Your task to perform on an android device: delete location history Image 0: 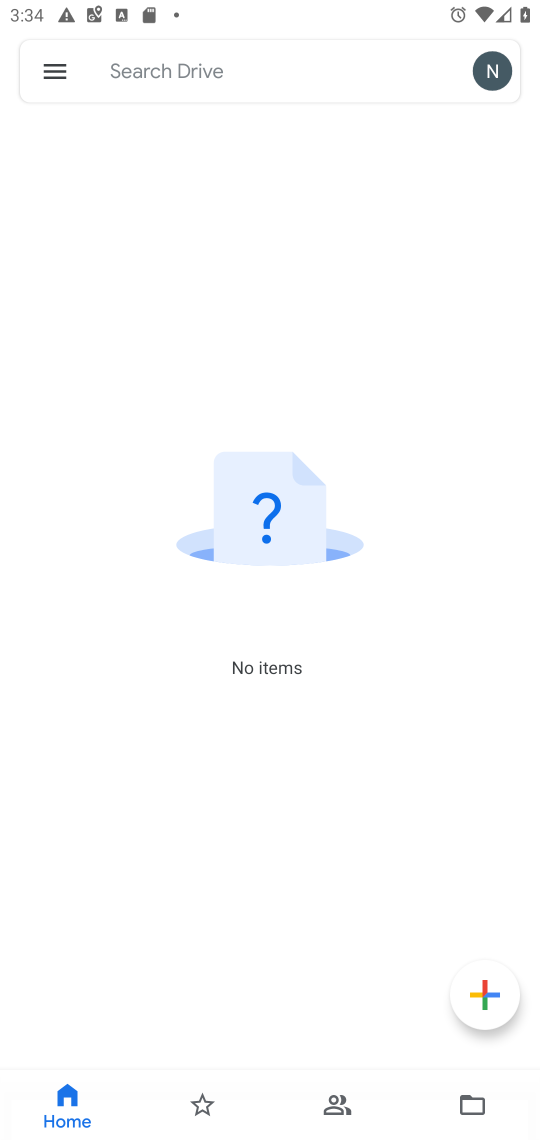
Step 0: press home button
Your task to perform on an android device: delete location history Image 1: 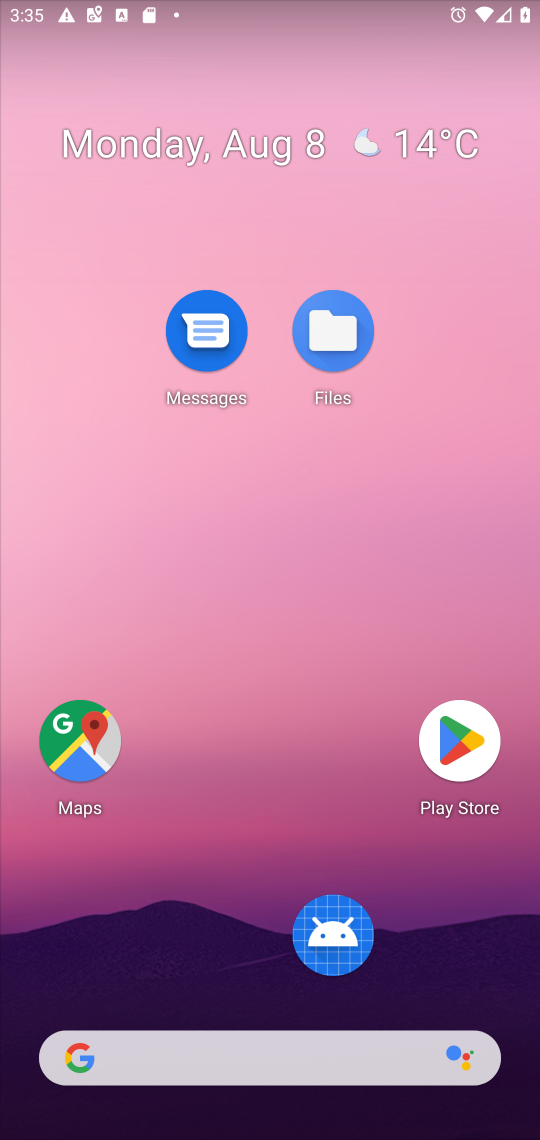
Step 1: drag from (327, 1057) to (120, 65)
Your task to perform on an android device: delete location history Image 2: 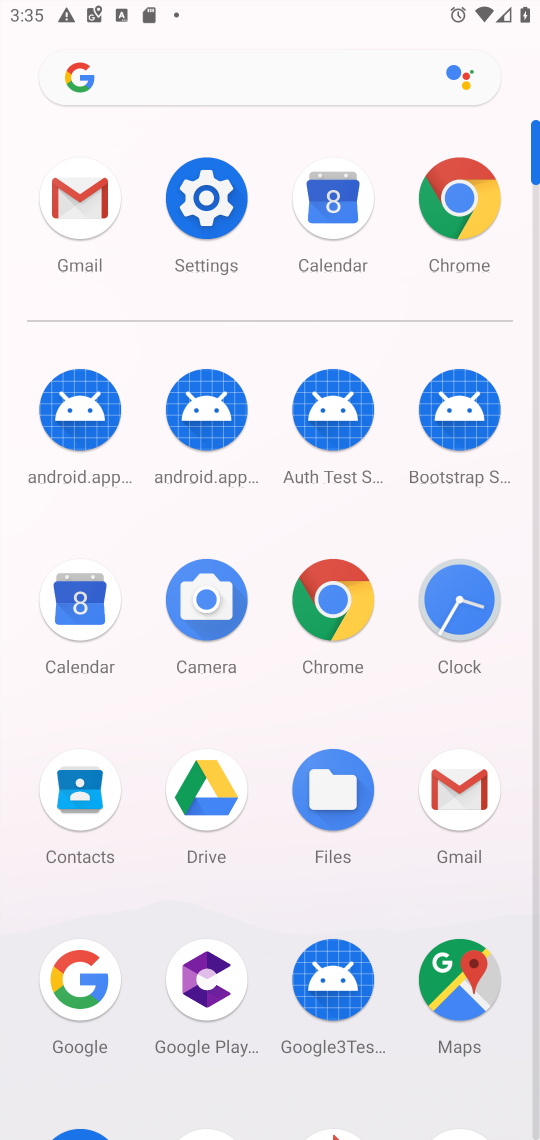
Step 2: click (180, 189)
Your task to perform on an android device: delete location history Image 3: 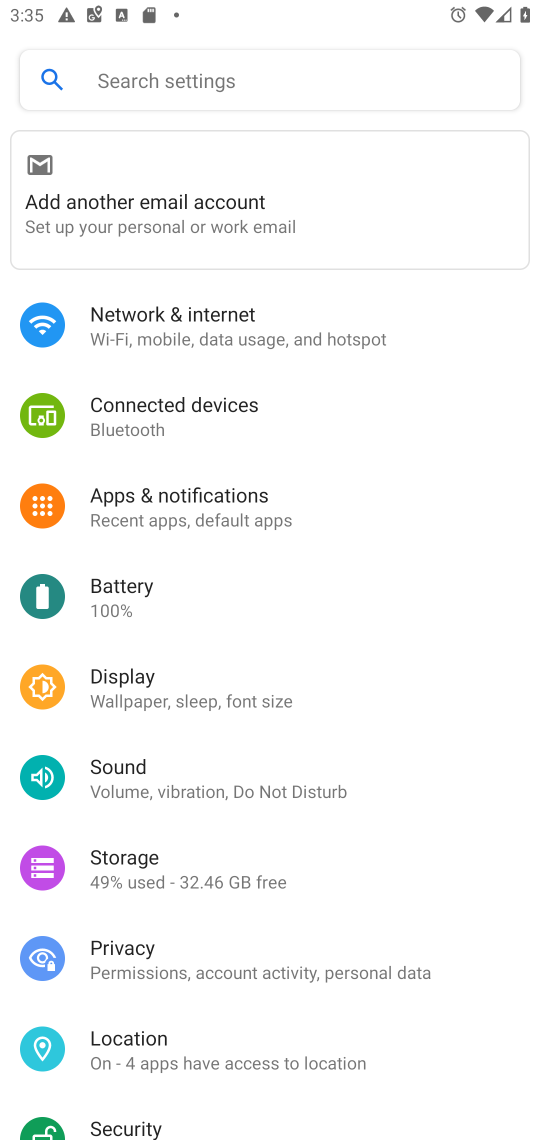
Step 3: click (173, 1040)
Your task to perform on an android device: delete location history Image 4: 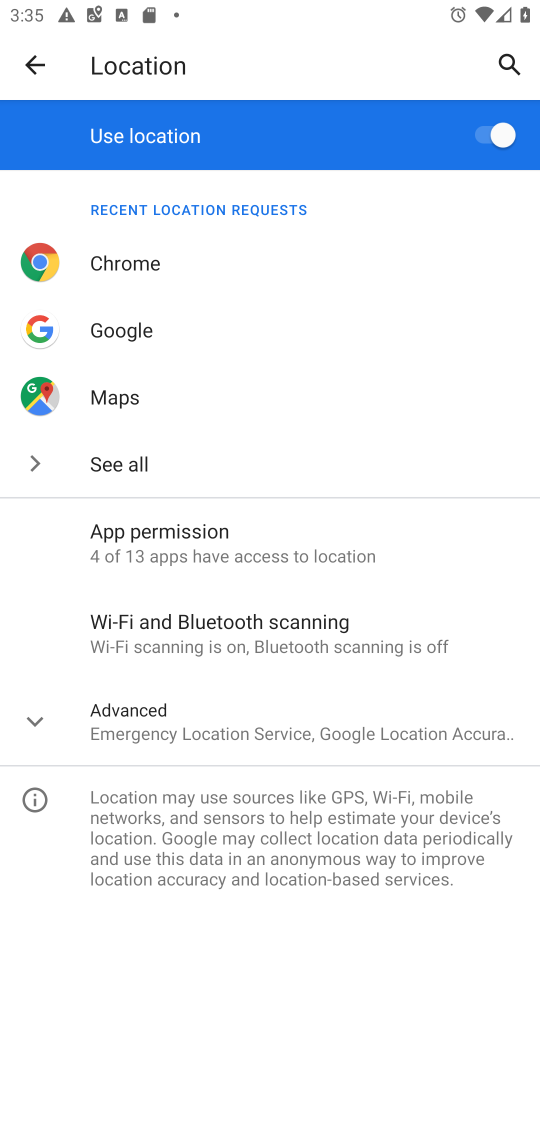
Step 4: press home button
Your task to perform on an android device: delete location history Image 5: 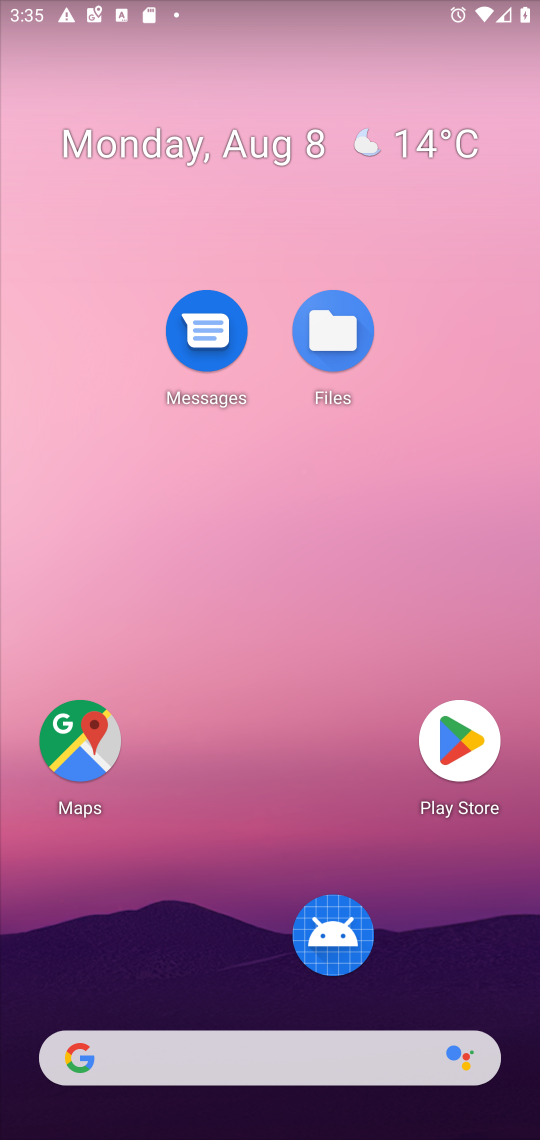
Step 5: drag from (269, 1042) to (313, 6)
Your task to perform on an android device: delete location history Image 6: 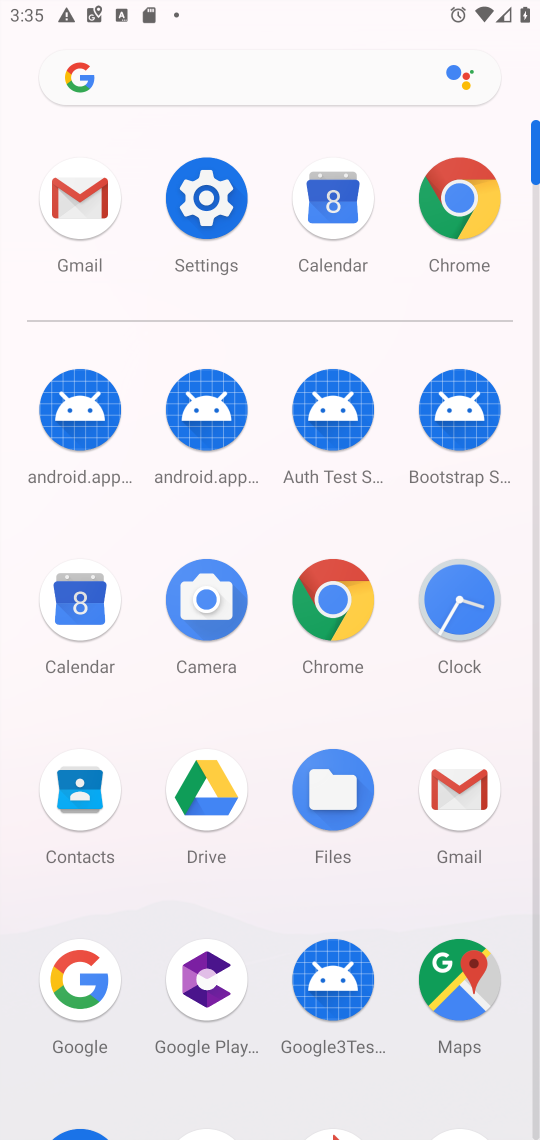
Step 6: click (467, 966)
Your task to perform on an android device: delete location history Image 7: 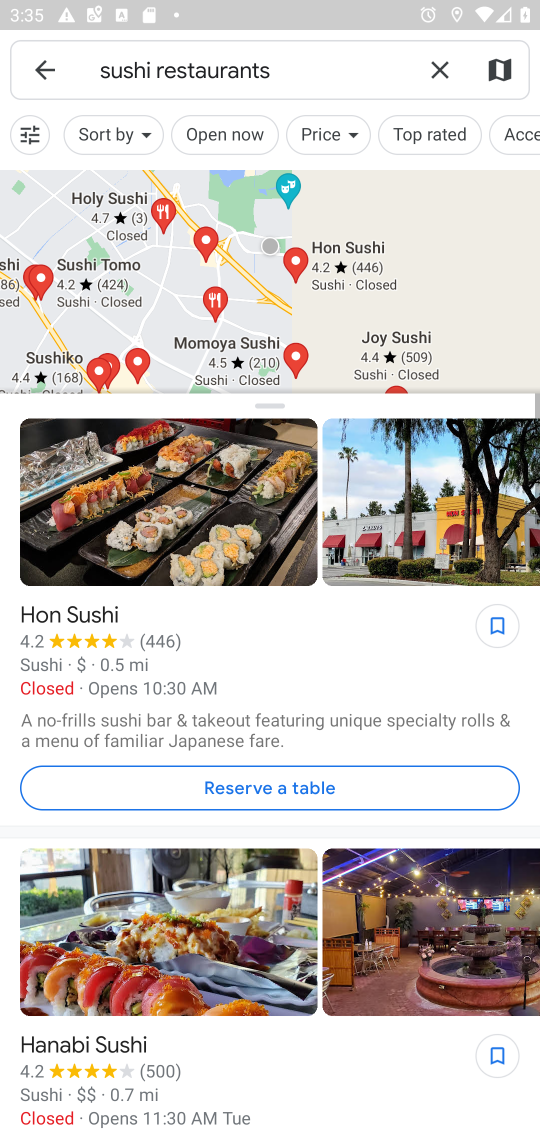
Step 7: press back button
Your task to perform on an android device: delete location history Image 8: 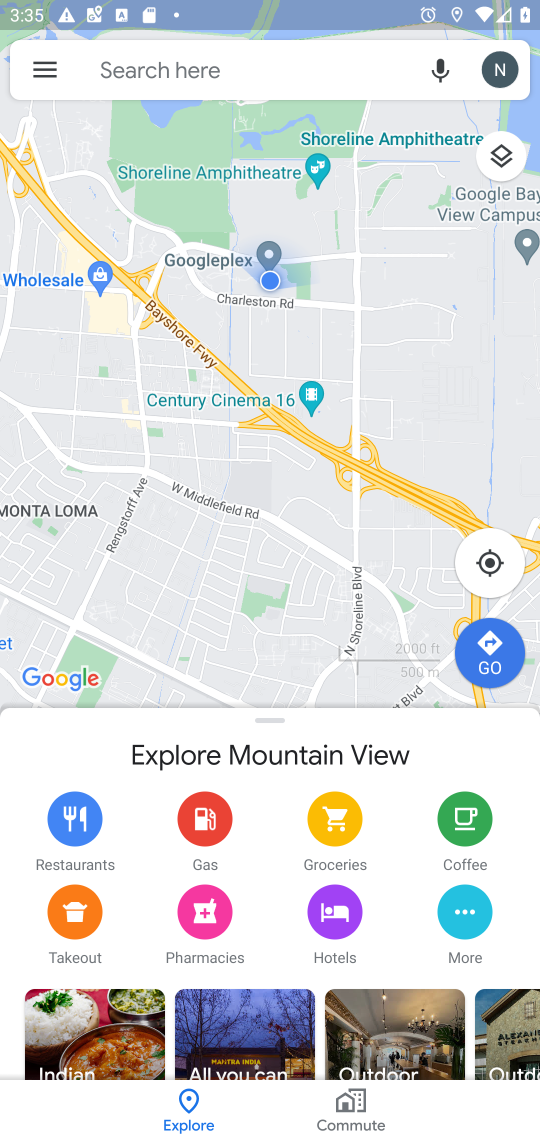
Step 8: click (55, 67)
Your task to perform on an android device: delete location history Image 9: 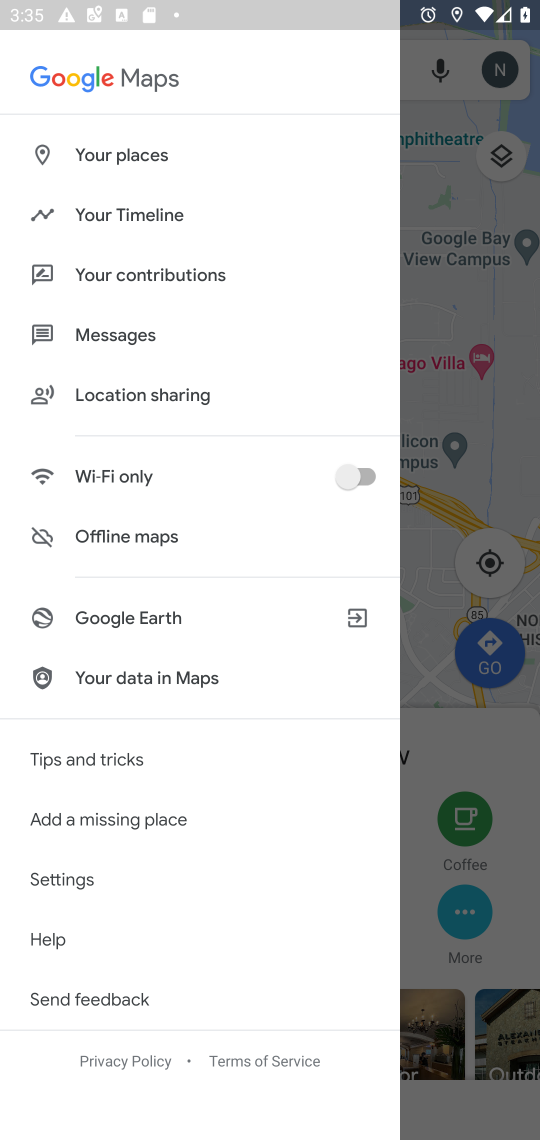
Step 9: click (164, 208)
Your task to perform on an android device: delete location history Image 10: 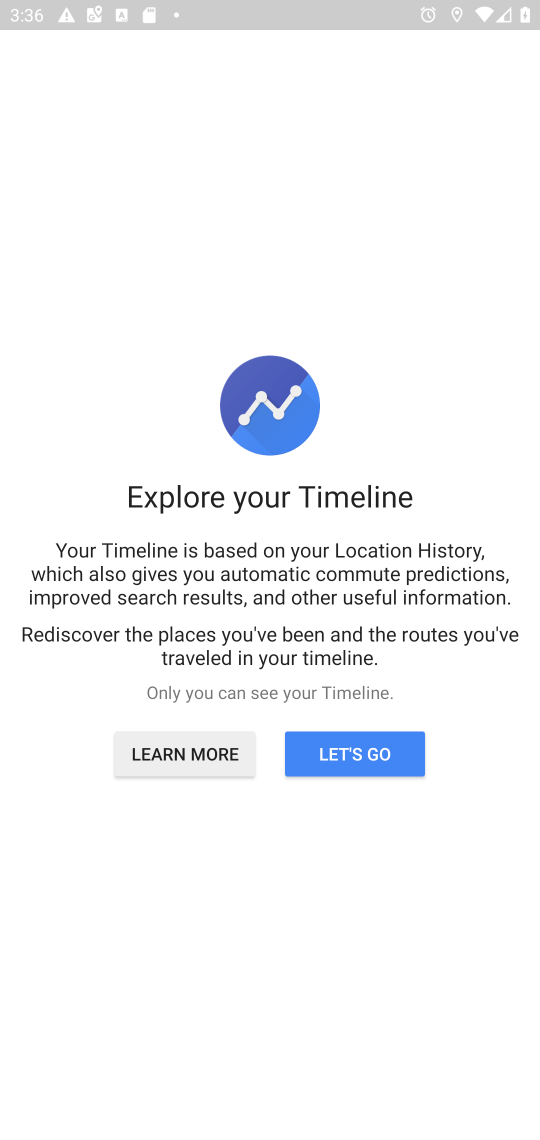
Step 10: click (326, 745)
Your task to perform on an android device: delete location history Image 11: 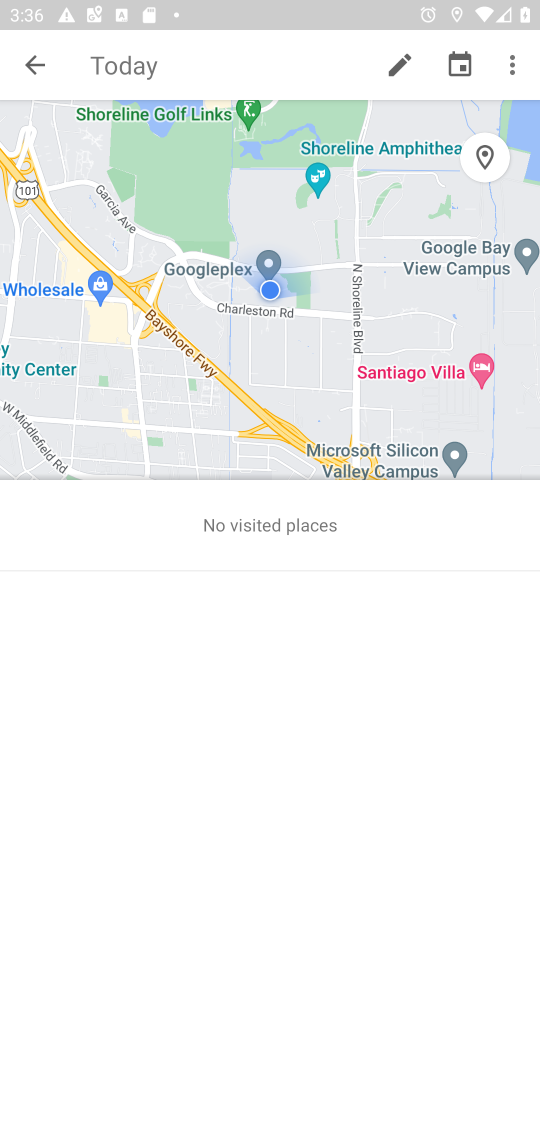
Step 11: click (513, 63)
Your task to perform on an android device: delete location history Image 12: 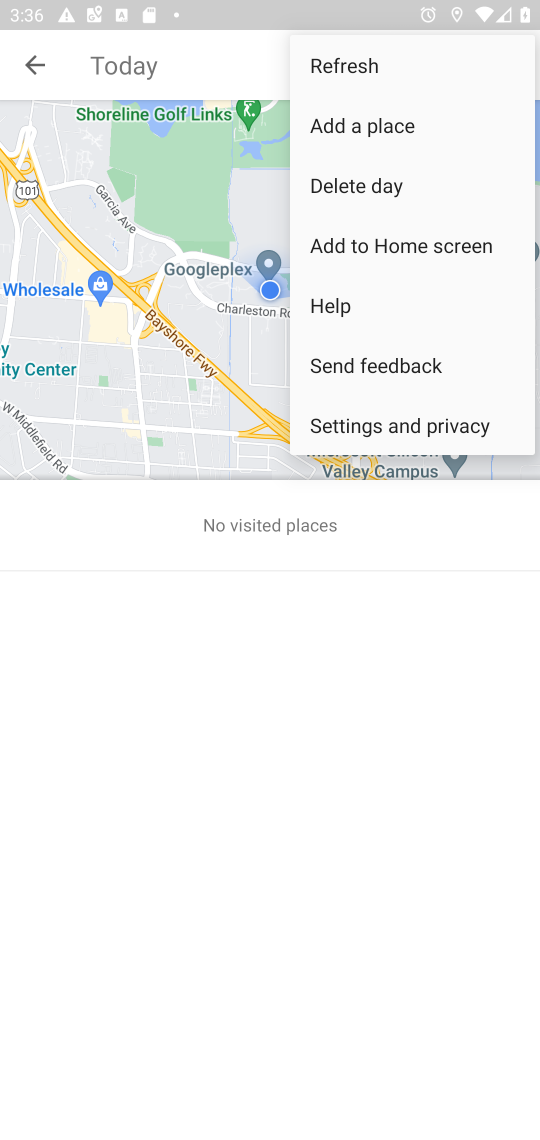
Step 12: click (394, 420)
Your task to perform on an android device: delete location history Image 13: 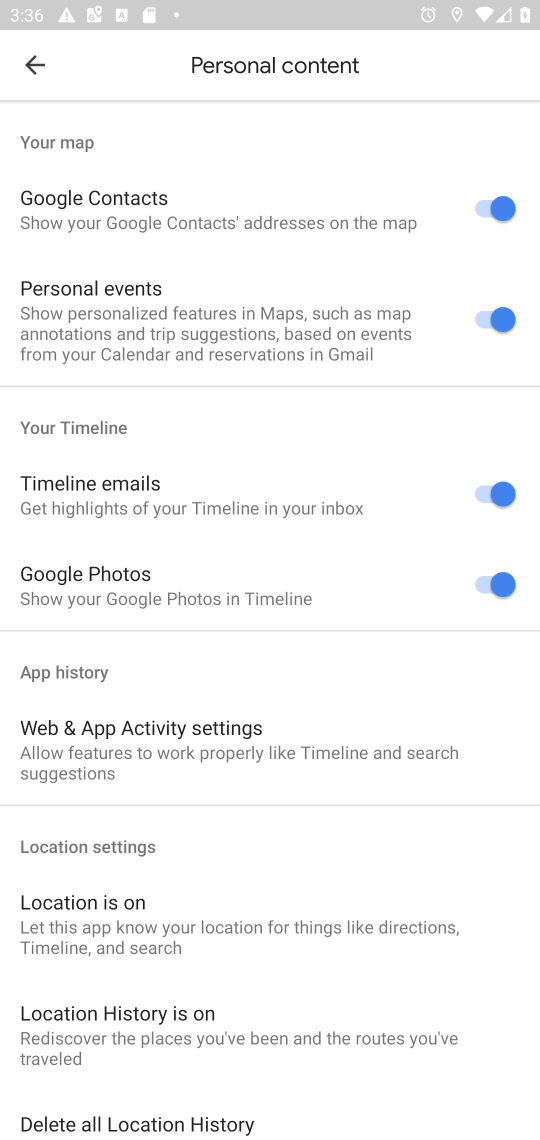
Step 13: click (242, 1107)
Your task to perform on an android device: delete location history Image 14: 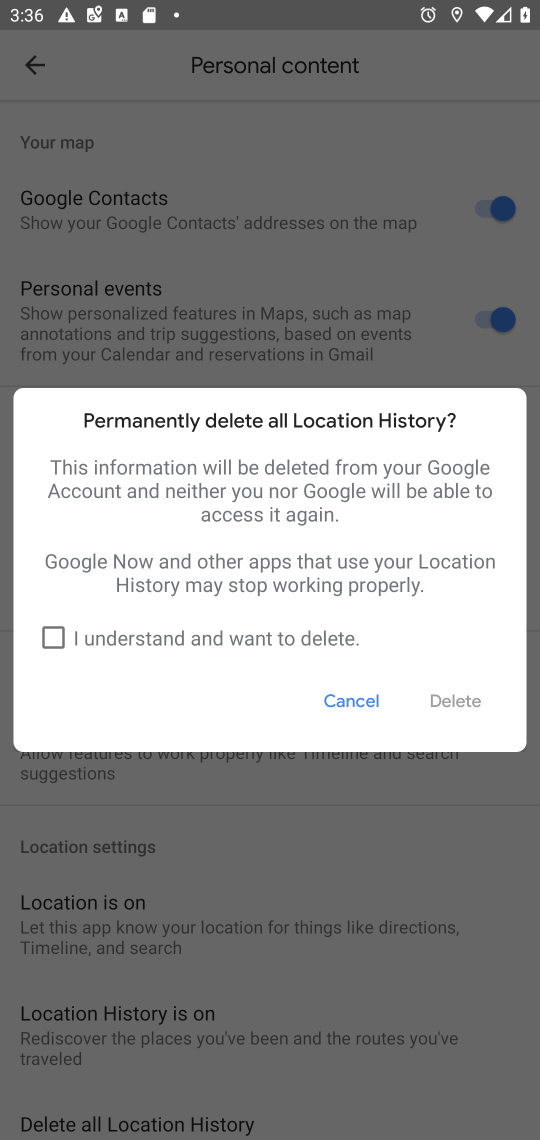
Step 14: click (55, 630)
Your task to perform on an android device: delete location history Image 15: 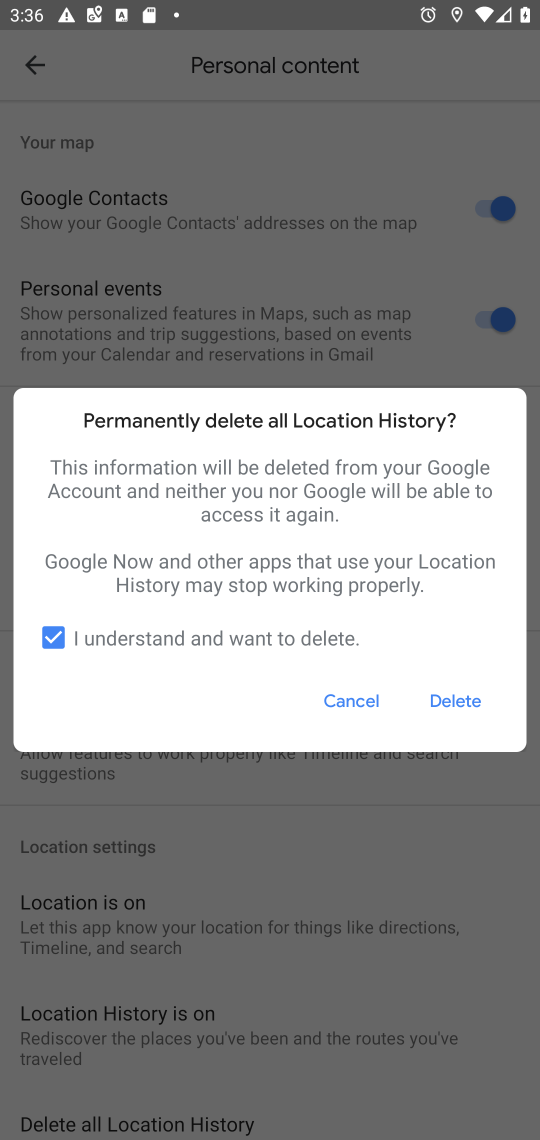
Step 15: click (473, 701)
Your task to perform on an android device: delete location history Image 16: 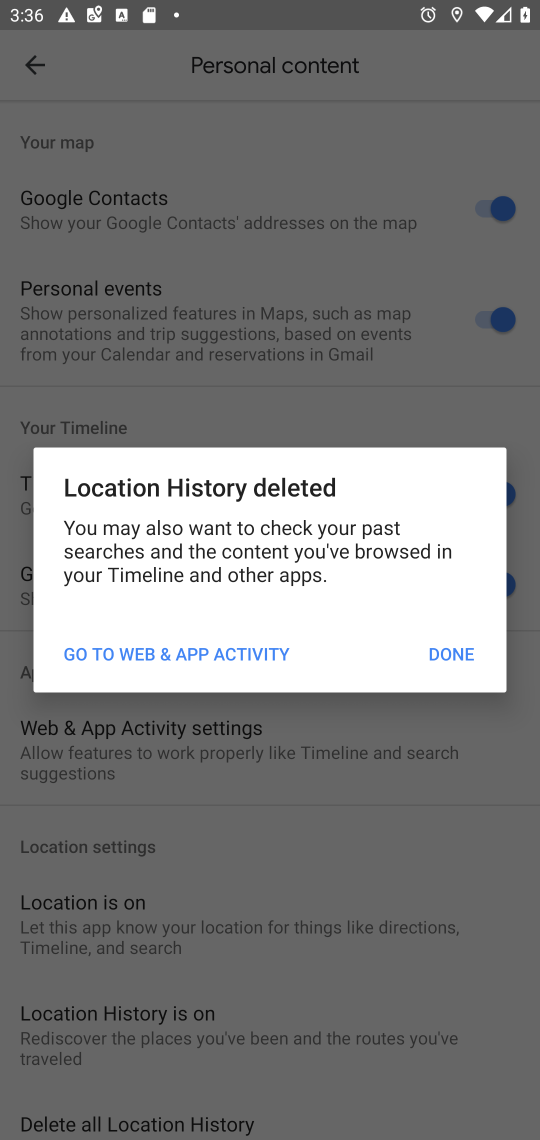
Step 16: task complete